Your task to perform on an android device: turn off priority inbox in the gmail app Image 0: 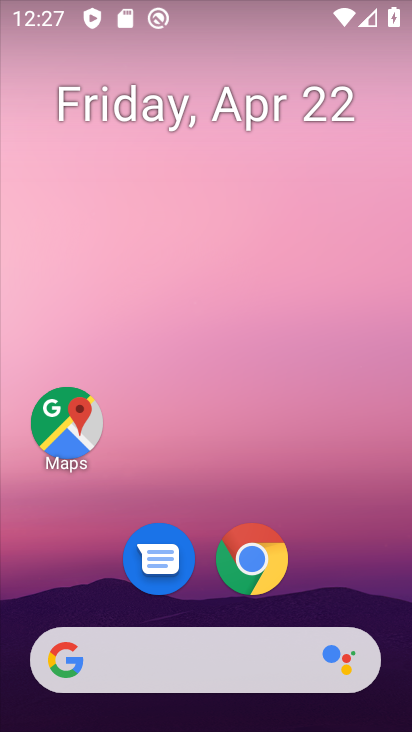
Step 0: drag from (368, 556) to (361, 124)
Your task to perform on an android device: turn off priority inbox in the gmail app Image 1: 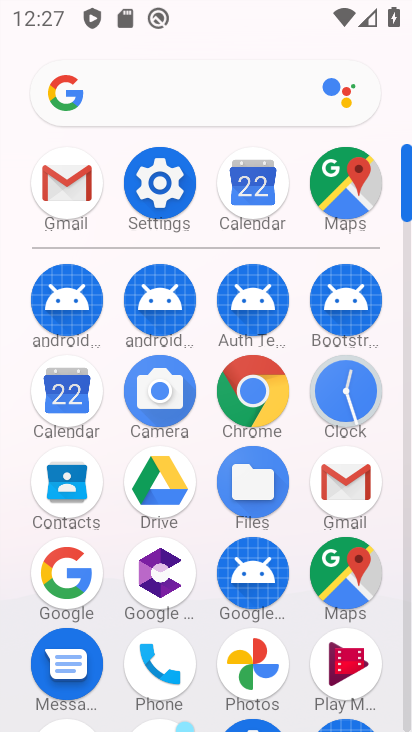
Step 1: click (343, 482)
Your task to perform on an android device: turn off priority inbox in the gmail app Image 2: 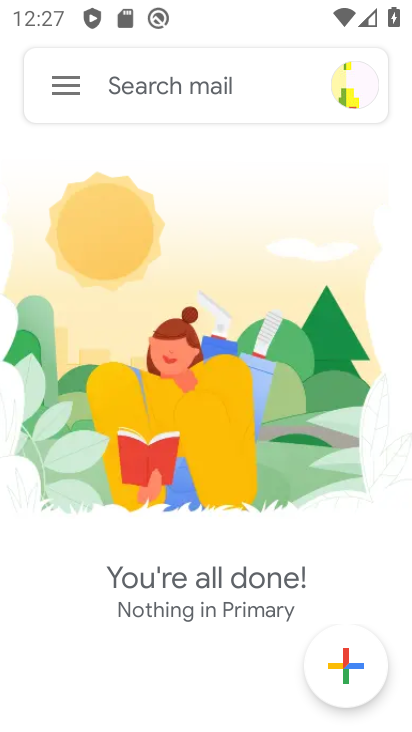
Step 2: click (72, 90)
Your task to perform on an android device: turn off priority inbox in the gmail app Image 3: 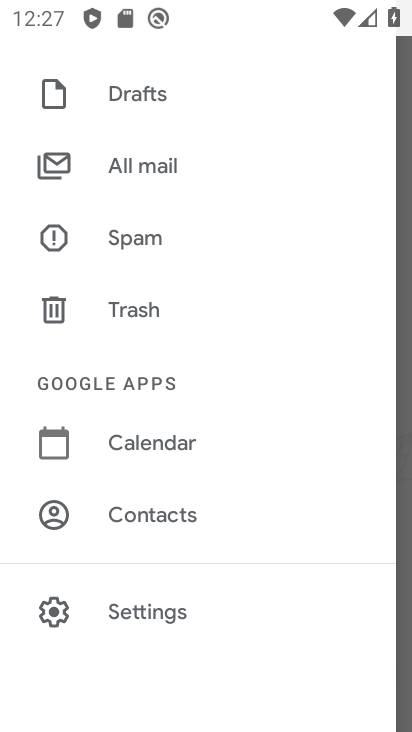
Step 3: drag from (285, 318) to (286, 407)
Your task to perform on an android device: turn off priority inbox in the gmail app Image 4: 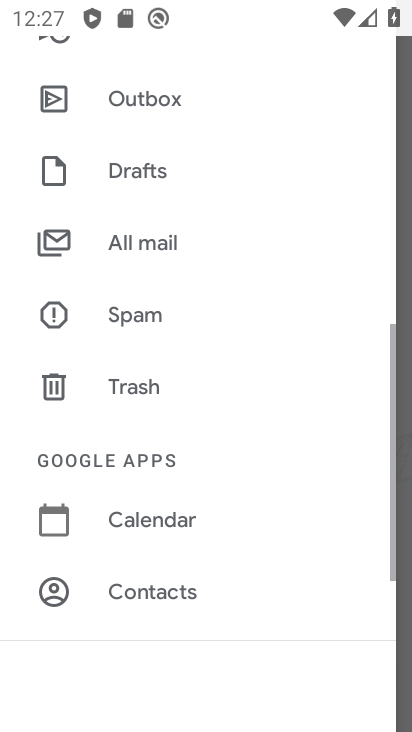
Step 4: drag from (311, 296) to (318, 419)
Your task to perform on an android device: turn off priority inbox in the gmail app Image 5: 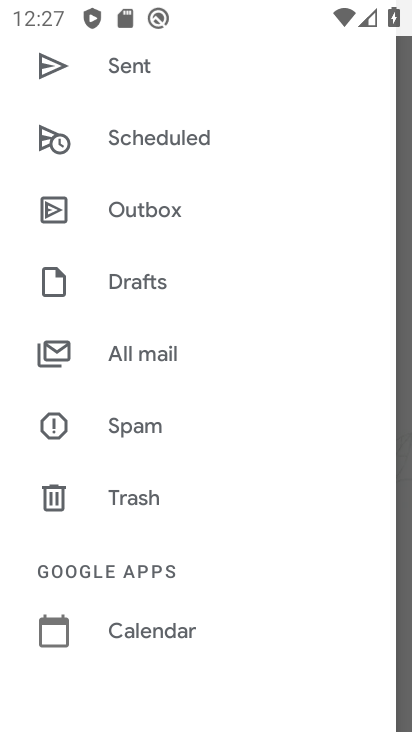
Step 5: drag from (332, 267) to (319, 400)
Your task to perform on an android device: turn off priority inbox in the gmail app Image 6: 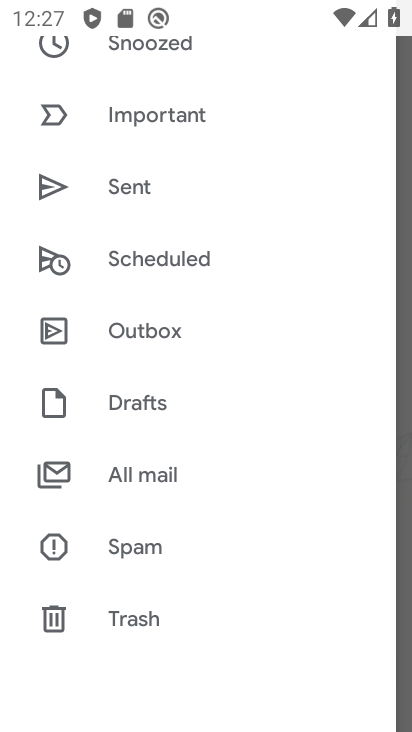
Step 6: drag from (319, 252) to (318, 399)
Your task to perform on an android device: turn off priority inbox in the gmail app Image 7: 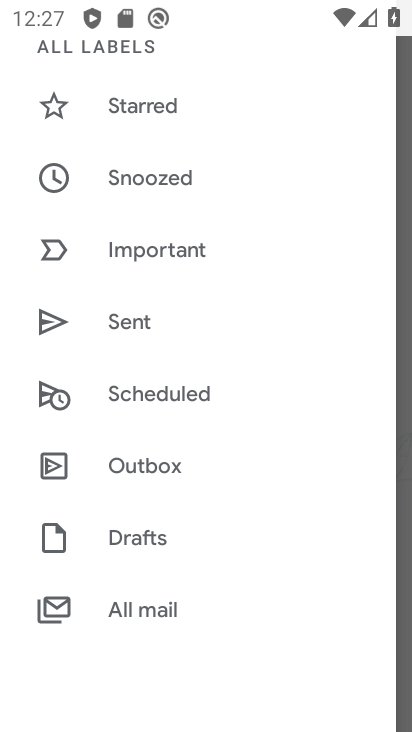
Step 7: drag from (321, 287) to (317, 428)
Your task to perform on an android device: turn off priority inbox in the gmail app Image 8: 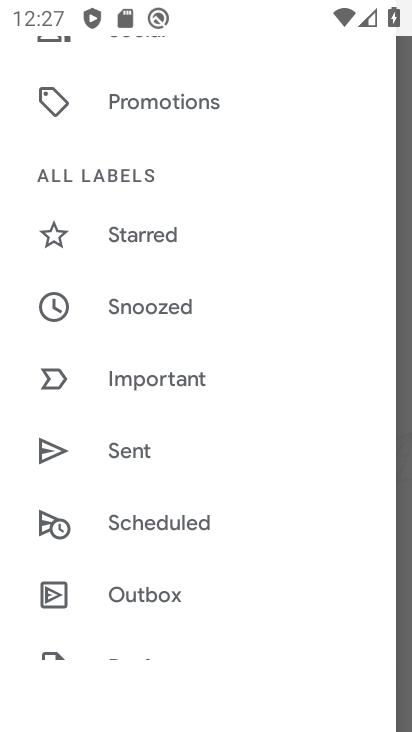
Step 8: drag from (320, 254) to (315, 432)
Your task to perform on an android device: turn off priority inbox in the gmail app Image 9: 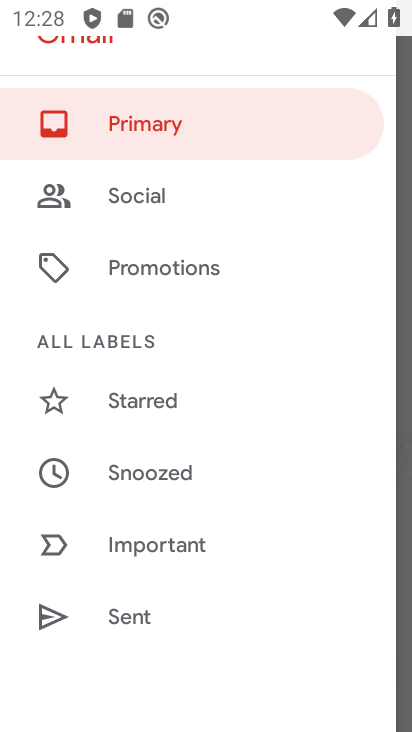
Step 9: drag from (296, 543) to (317, 379)
Your task to perform on an android device: turn off priority inbox in the gmail app Image 10: 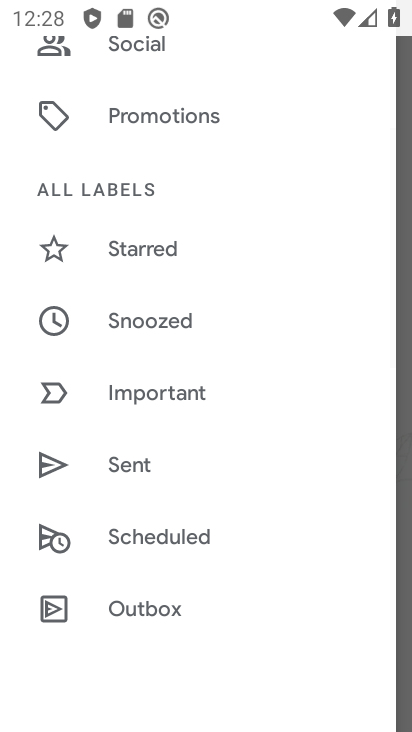
Step 10: drag from (308, 571) to (320, 390)
Your task to perform on an android device: turn off priority inbox in the gmail app Image 11: 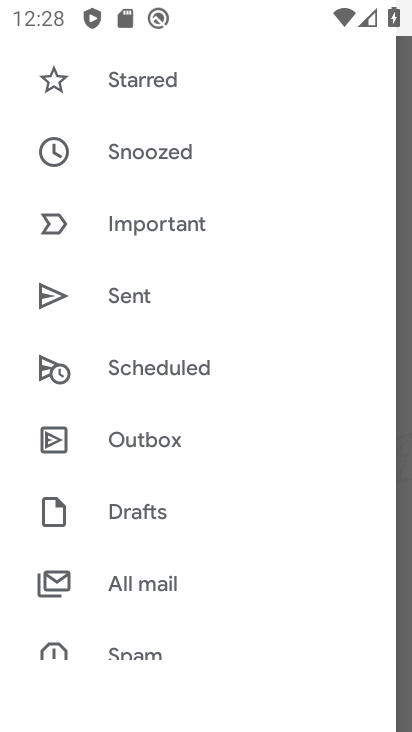
Step 11: drag from (315, 567) to (318, 419)
Your task to perform on an android device: turn off priority inbox in the gmail app Image 12: 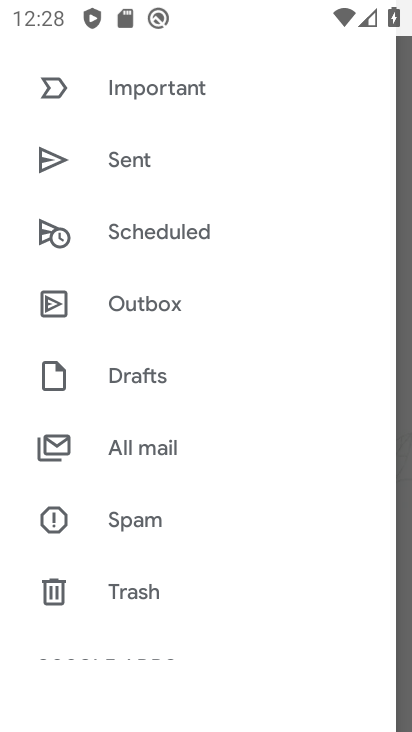
Step 12: drag from (322, 511) to (326, 272)
Your task to perform on an android device: turn off priority inbox in the gmail app Image 13: 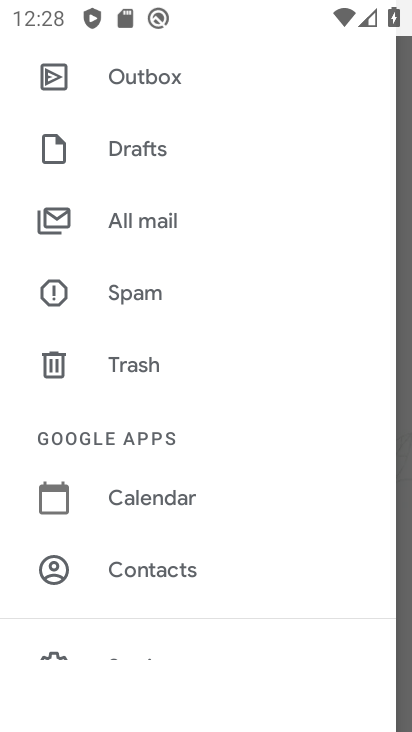
Step 13: drag from (298, 545) to (333, 321)
Your task to perform on an android device: turn off priority inbox in the gmail app Image 14: 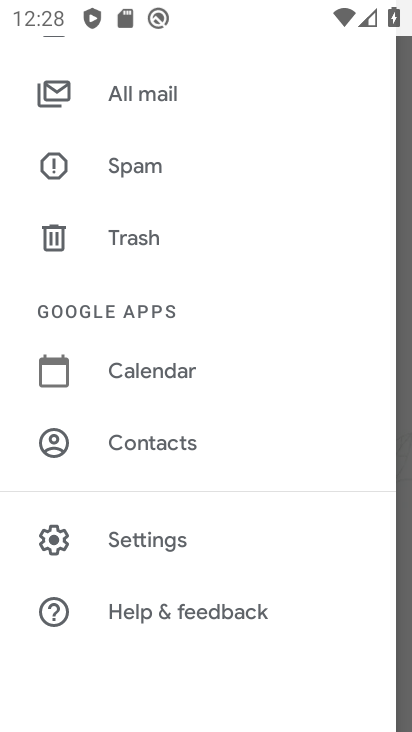
Step 14: click (177, 541)
Your task to perform on an android device: turn off priority inbox in the gmail app Image 15: 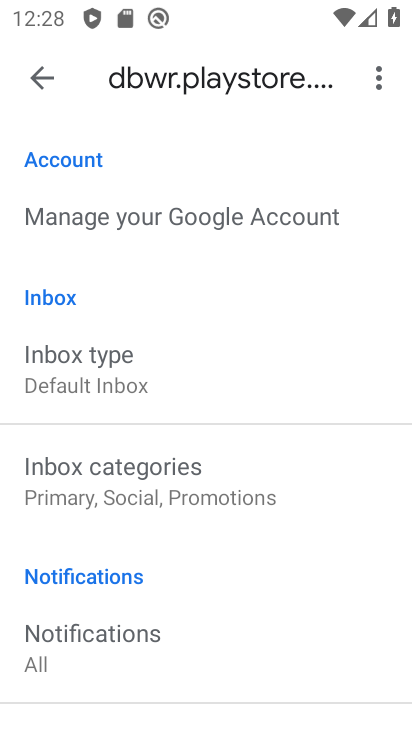
Step 15: drag from (326, 576) to (335, 407)
Your task to perform on an android device: turn off priority inbox in the gmail app Image 16: 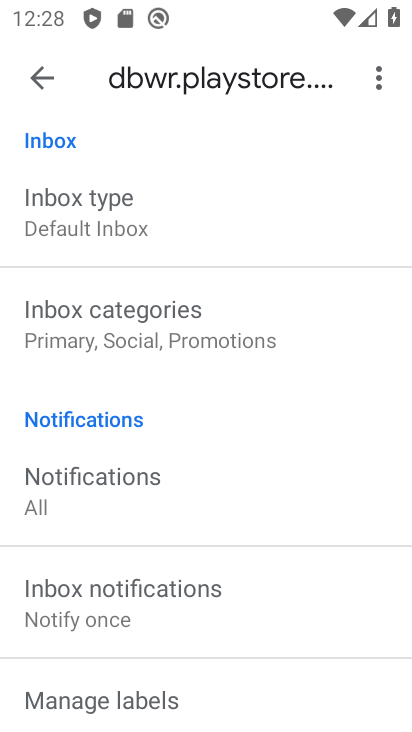
Step 16: drag from (310, 592) to (311, 428)
Your task to perform on an android device: turn off priority inbox in the gmail app Image 17: 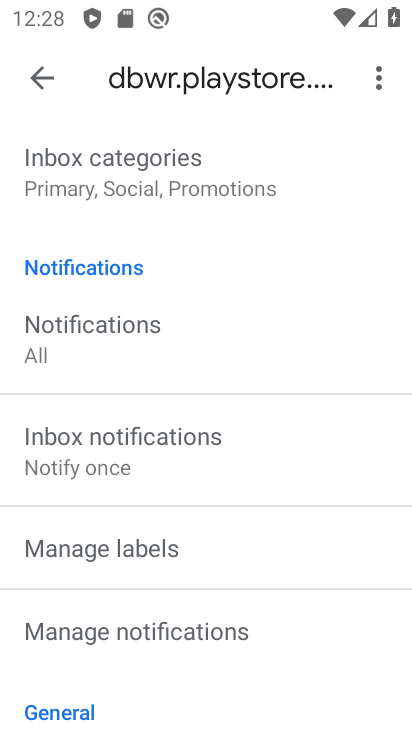
Step 17: drag from (324, 298) to (312, 464)
Your task to perform on an android device: turn off priority inbox in the gmail app Image 18: 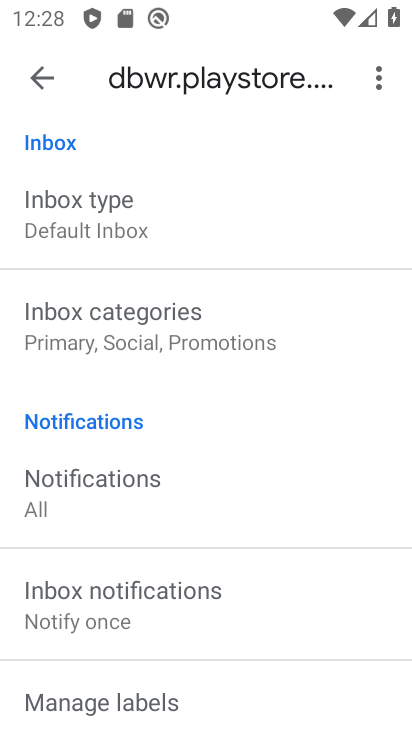
Step 18: drag from (298, 259) to (301, 507)
Your task to perform on an android device: turn off priority inbox in the gmail app Image 19: 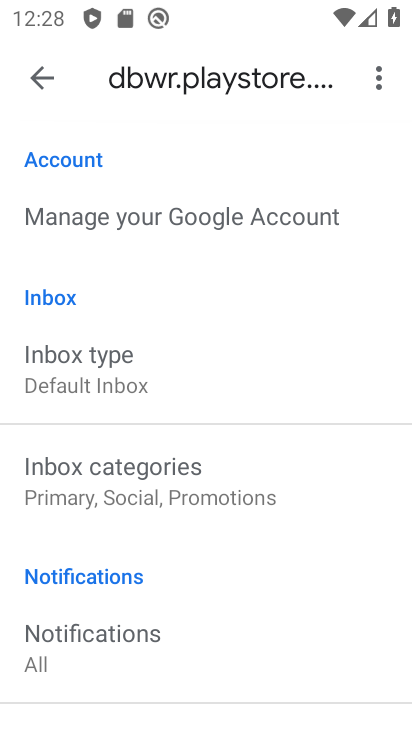
Step 19: click (115, 380)
Your task to perform on an android device: turn off priority inbox in the gmail app Image 20: 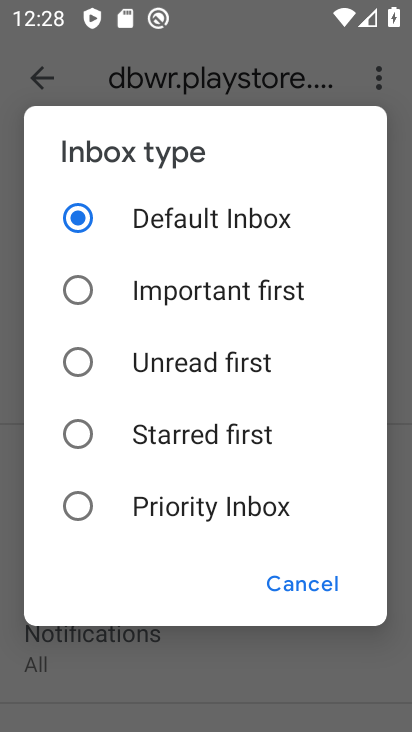
Step 20: task complete